Your task to perform on an android device: What time is it in Berlin? Image 0: 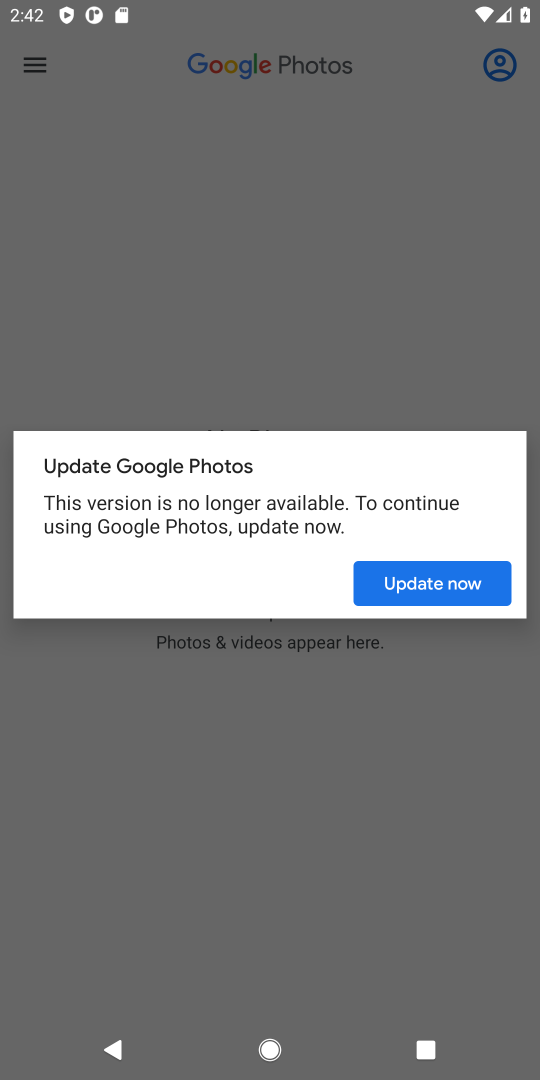
Step 0: press home button
Your task to perform on an android device: What time is it in Berlin? Image 1: 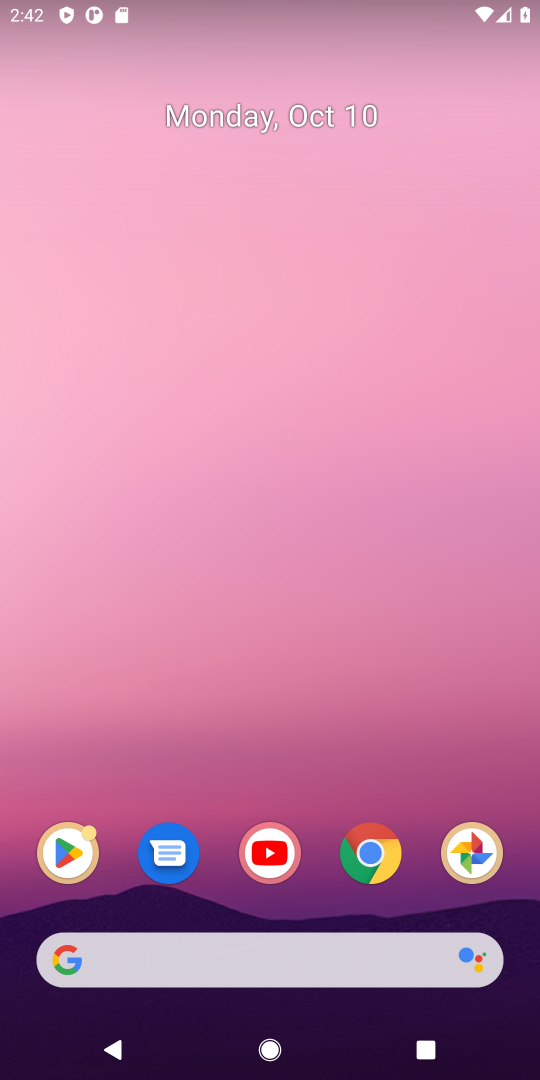
Step 1: click (381, 858)
Your task to perform on an android device: What time is it in Berlin? Image 2: 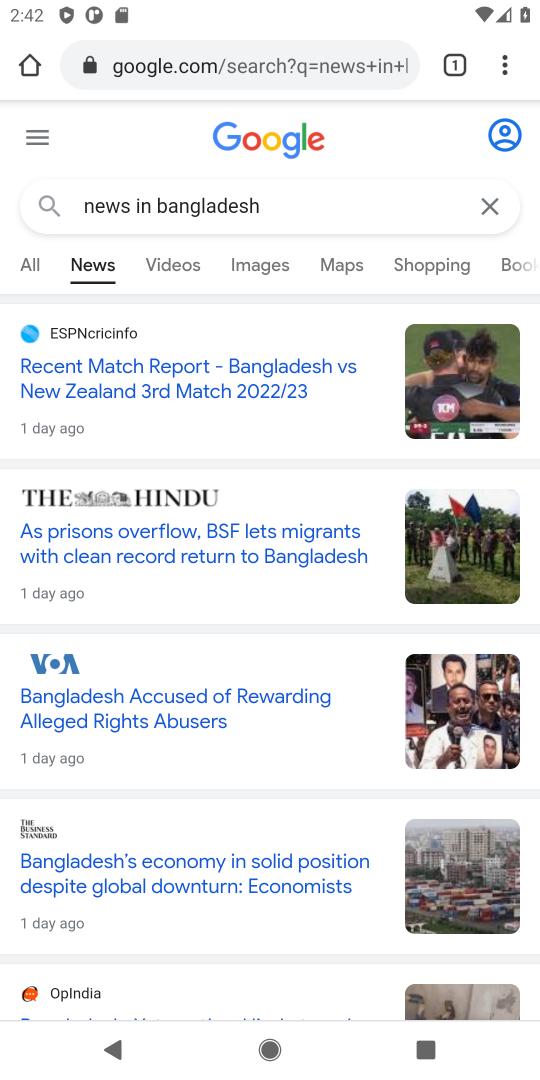
Step 2: click (367, 78)
Your task to perform on an android device: What time is it in Berlin? Image 3: 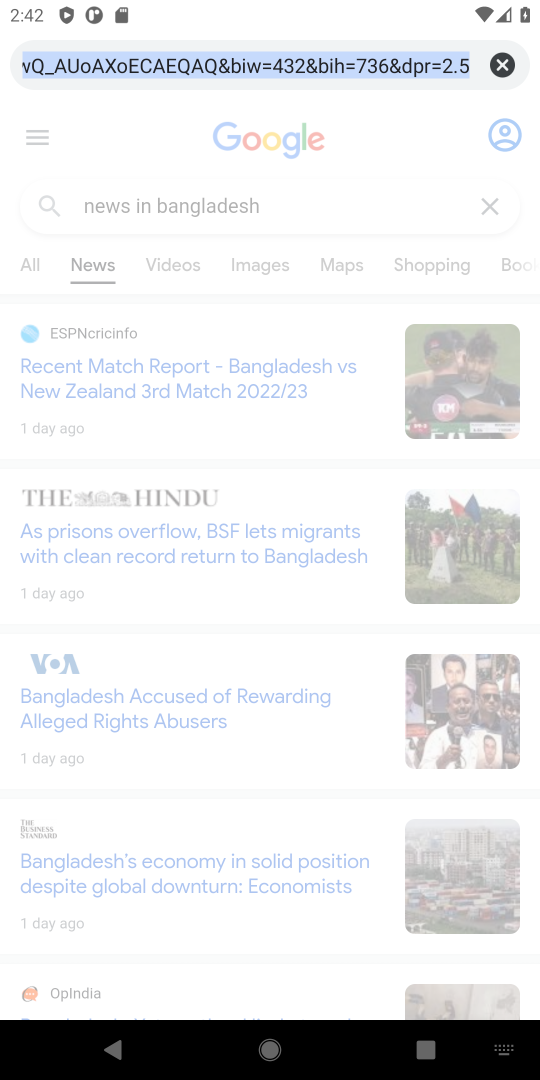
Step 3: type "time in berlin"
Your task to perform on an android device: What time is it in Berlin? Image 4: 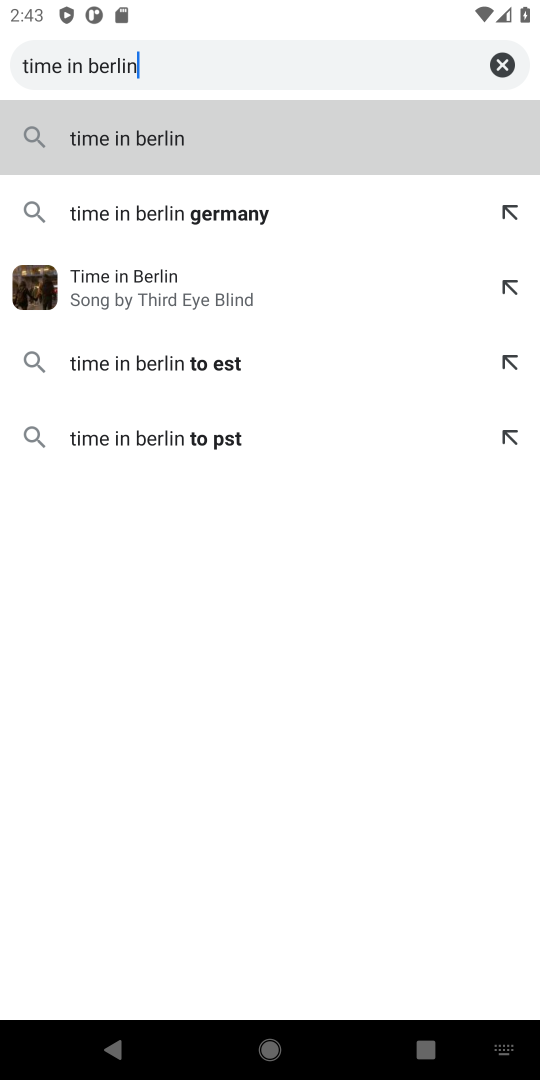
Step 4: click (183, 154)
Your task to perform on an android device: What time is it in Berlin? Image 5: 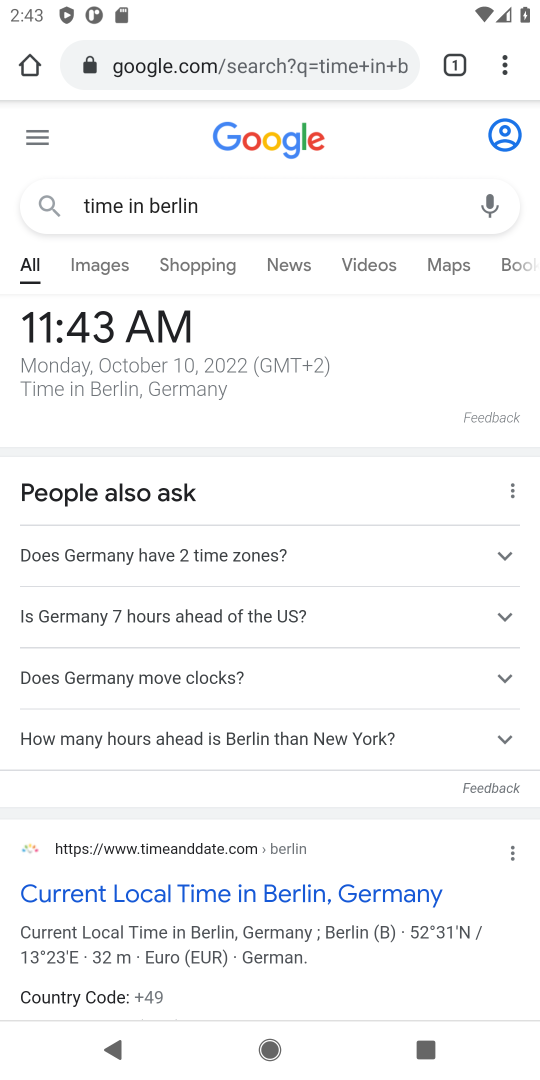
Step 5: task complete